Your task to perform on an android device: Go to Amazon Image 0: 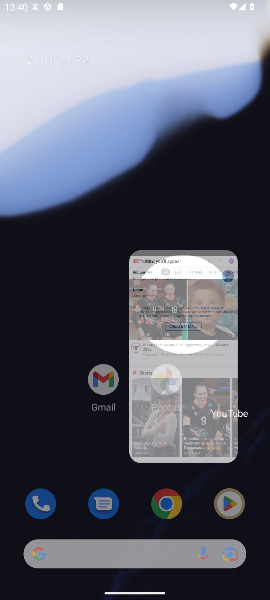
Step 0: press home button
Your task to perform on an android device: Go to Amazon Image 1: 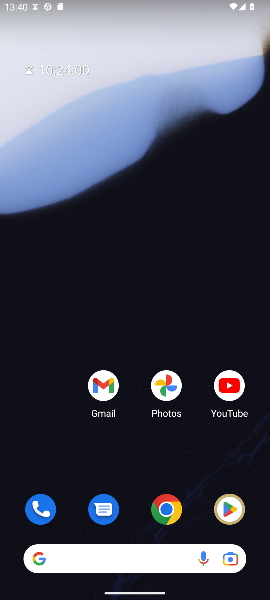
Step 1: drag from (142, 489) to (221, 115)
Your task to perform on an android device: Go to Amazon Image 2: 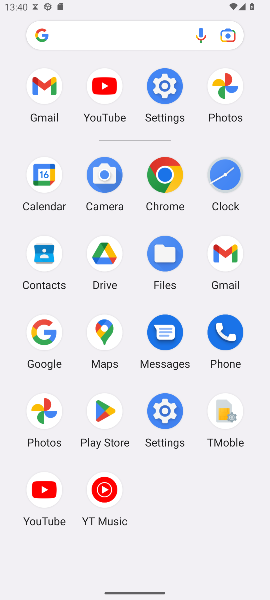
Step 2: click (54, 336)
Your task to perform on an android device: Go to Amazon Image 3: 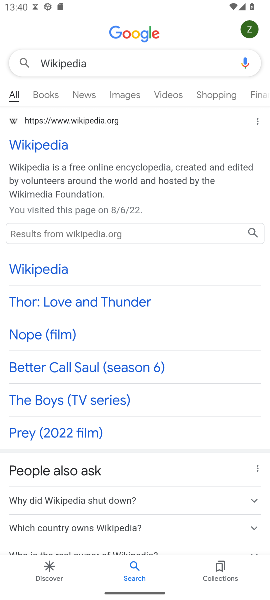
Step 3: click (164, 61)
Your task to perform on an android device: Go to Amazon Image 4: 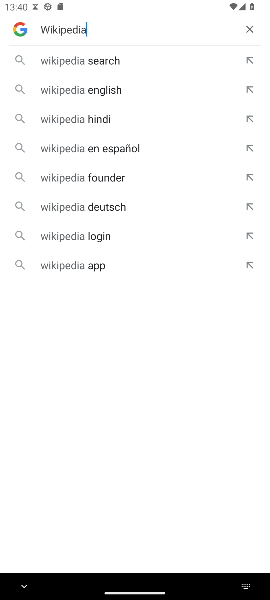
Step 4: click (254, 27)
Your task to perform on an android device: Go to Amazon Image 5: 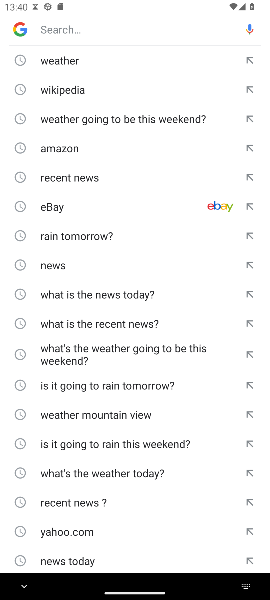
Step 5: type "Amazon"
Your task to perform on an android device: Go to Amazon Image 6: 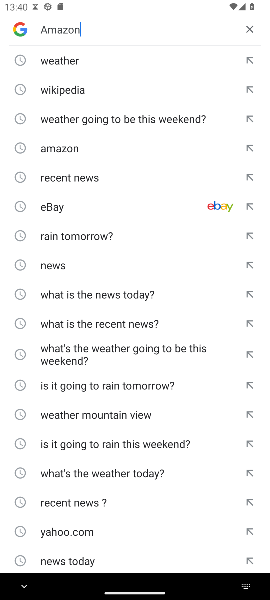
Step 6: press enter
Your task to perform on an android device: Go to Amazon Image 7: 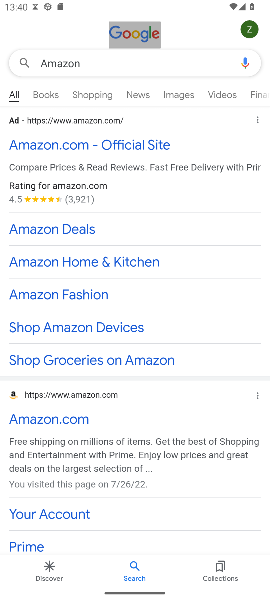
Step 7: click (121, 136)
Your task to perform on an android device: Go to Amazon Image 8: 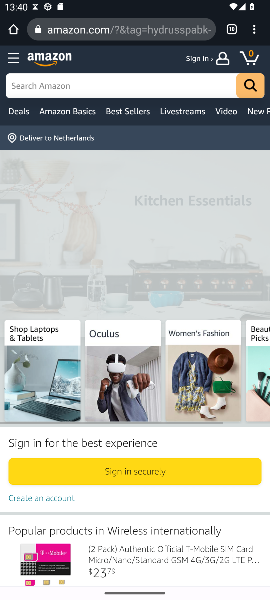
Step 8: task complete